Your task to perform on an android device: Go to Google maps Image 0: 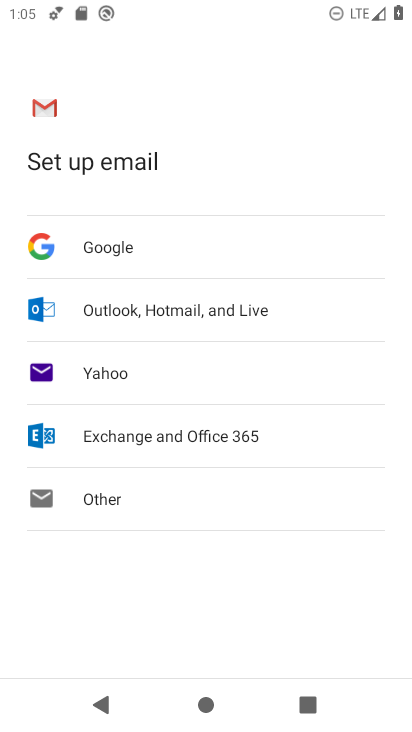
Step 0: press back button
Your task to perform on an android device: Go to Google maps Image 1: 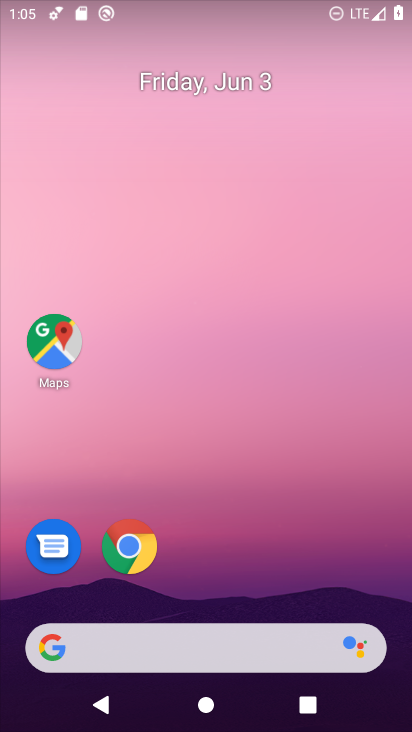
Step 1: click (53, 346)
Your task to perform on an android device: Go to Google maps Image 2: 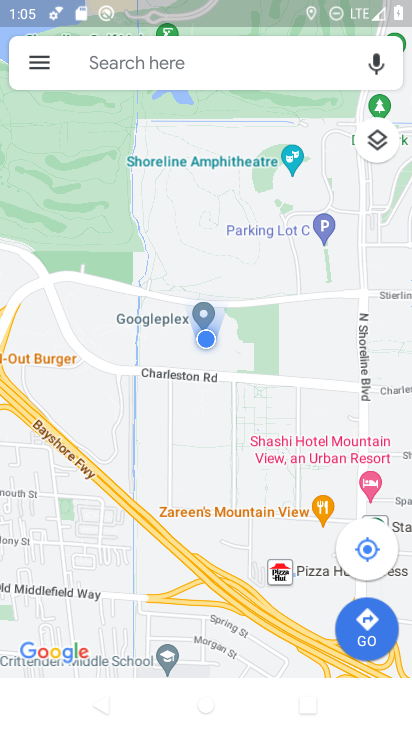
Step 2: task complete